Your task to perform on an android device: turn off sleep mode Image 0: 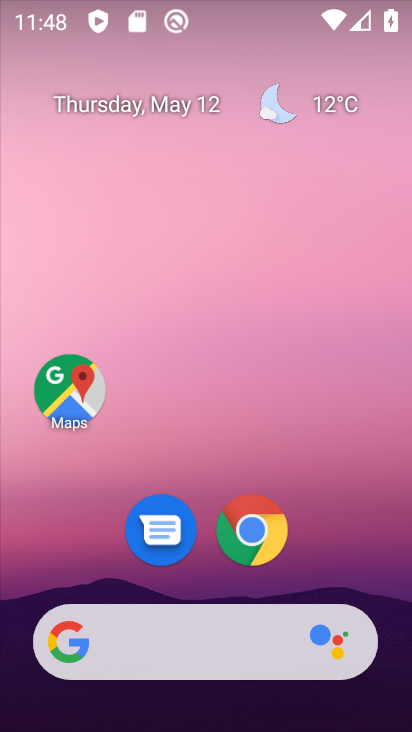
Step 0: drag from (355, 544) to (291, 130)
Your task to perform on an android device: turn off sleep mode Image 1: 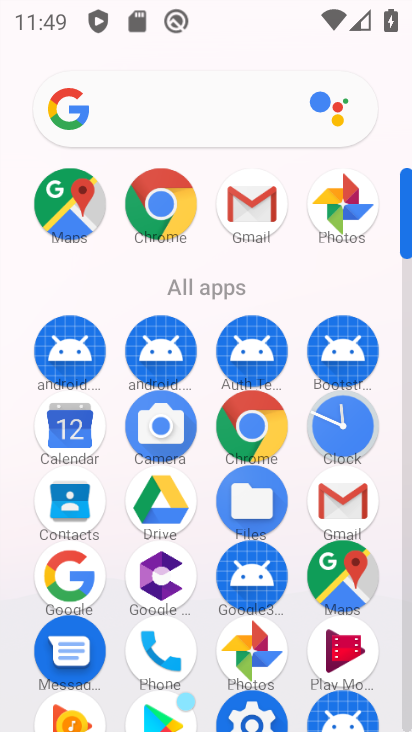
Step 1: drag from (229, 307) to (186, 40)
Your task to perform on an android device: turn off sleep mode Image 2: 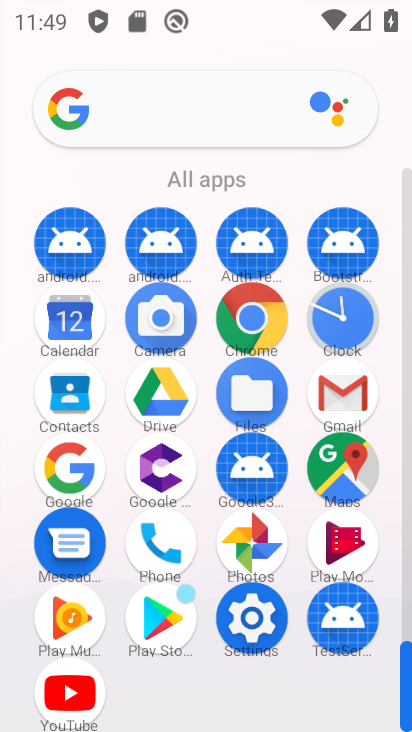
Step 2: click (267, 611)
Your task to perform on an android device: turn off sleep mode Image 3: 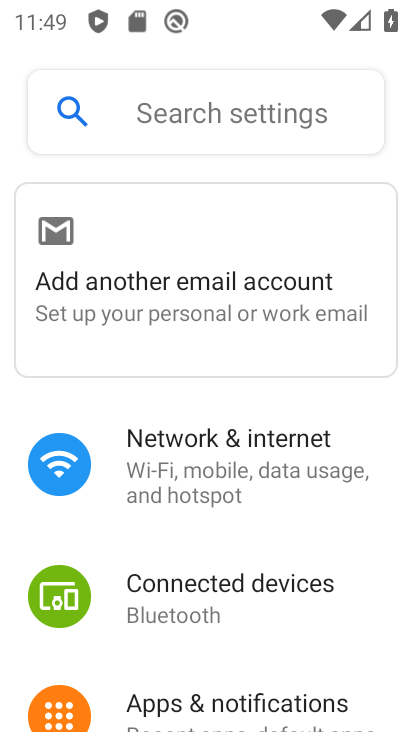
Step 3: drag from (298, 621) to (224, 492)
Your task to perform on an android device: turn off sleep mode Image 4: 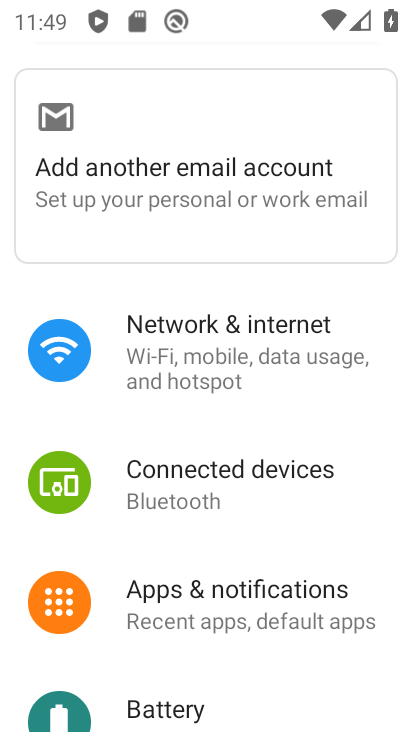
Step 4: click (269, 621)
Your task to perform on an android device: turn off sleep mode Image 5: 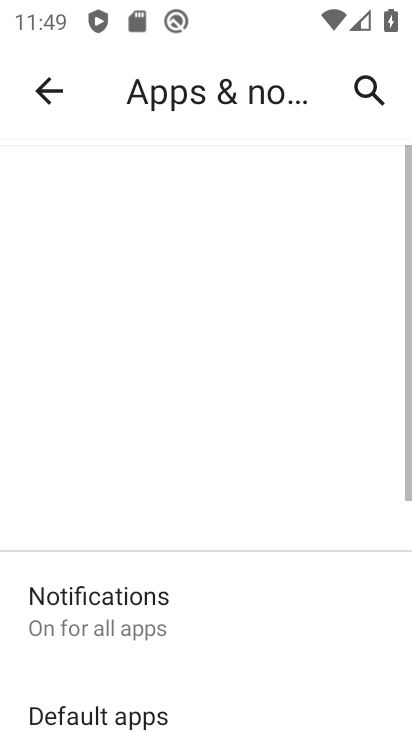
Step 5: click (46, 81)
Your task to perform on an android device: turn off sleep mode Image 6: 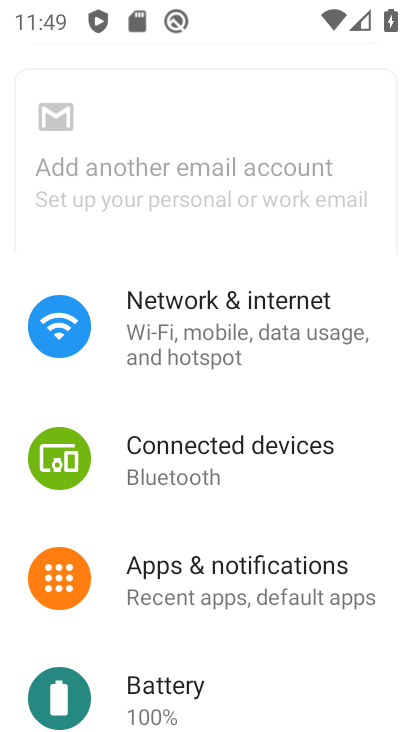
Step 6: drag from (278, 578) to (227, 200)
Your task to perform on an android device: turn off sleep mode Image 7: 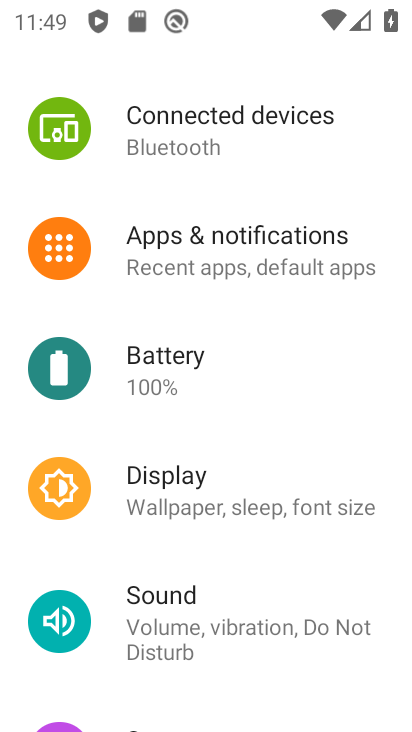
Step 7: click (231, 472)
Your task to perform on an android device: turn off sleep mode Image 8: 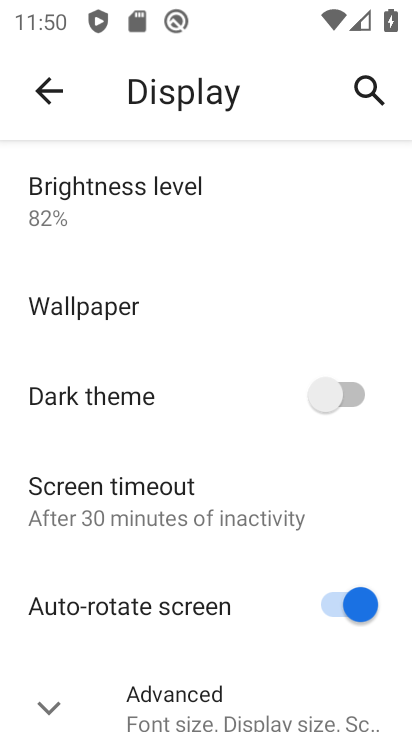
Step 8: drag from (273, 613) to (236, 215)
Your task to perform on an android device: turn off sleep mode Image 9: 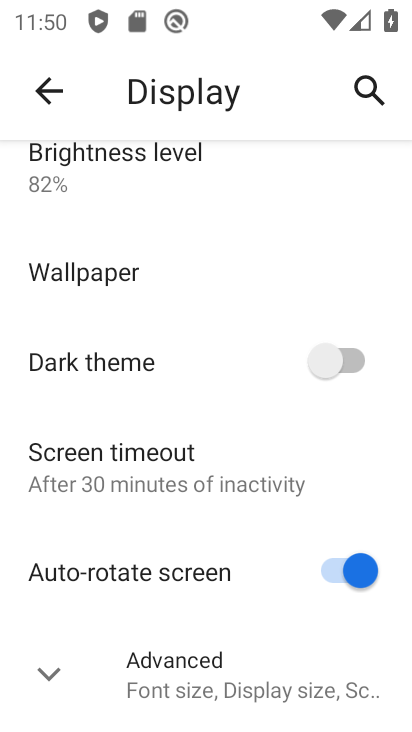
Step 9: click (231, 473)
Your task to perform on an android device: turn off sleep mode Image 10: 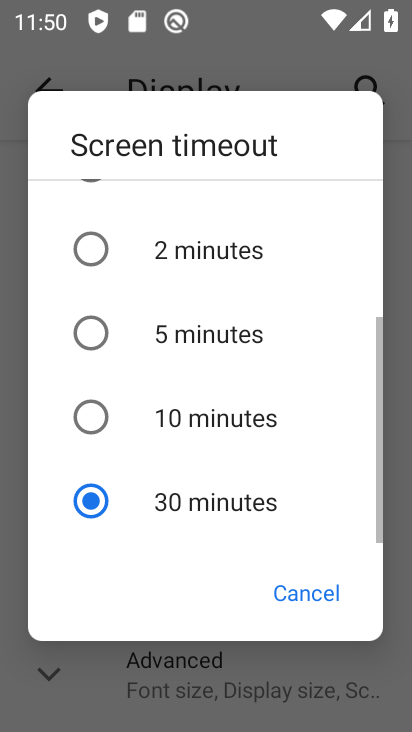
Step 10: task complete